Your task to perform on an android device: Open the map Image 0: 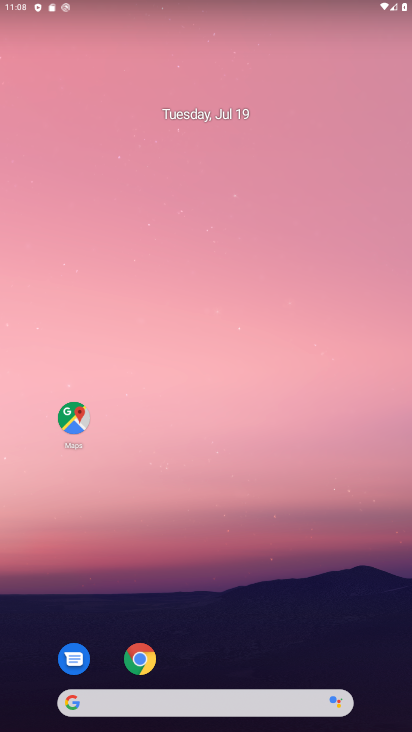
Step 0: click (76, 428)
Your task to perform on an android device: Open the map Image 1: 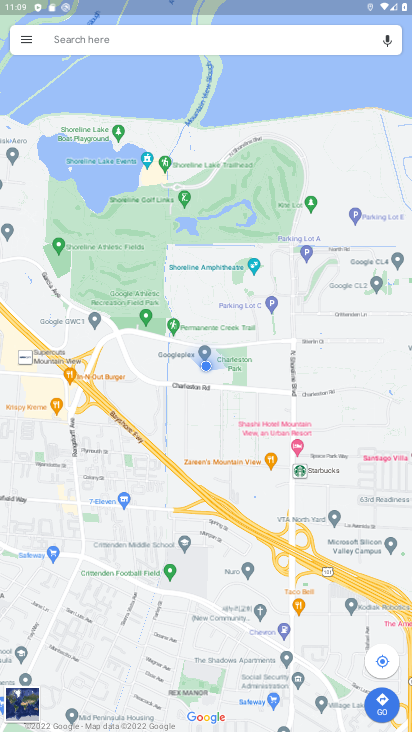
Step 1: task complete